Your task to perform on an android device: Open calendar and show me the third week of next month Image 0: 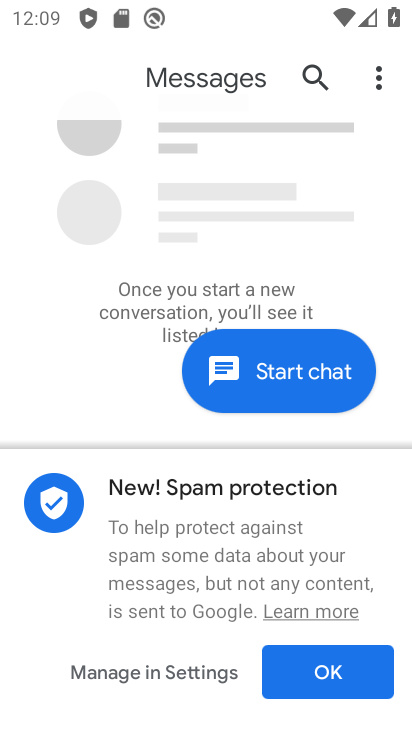
Step 0: press home button
Your task to perform on an android device: Open calendar and show me the third week of next month Image 1: 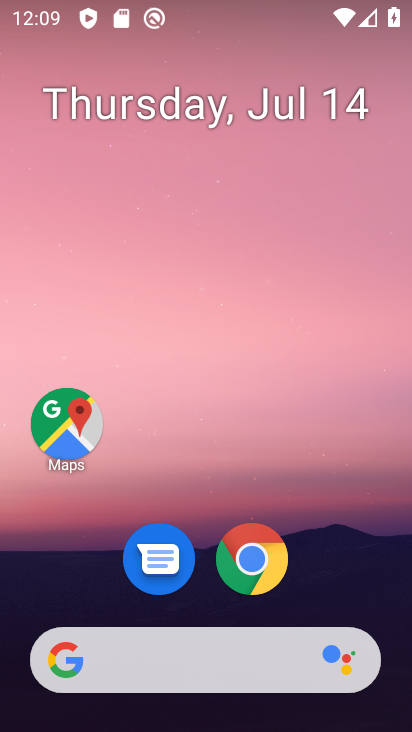
Step 1: drag from (312, 504) to (300, 10)
Your task to perform on an android device: Open calendar and show me the third week of next month Image 2: 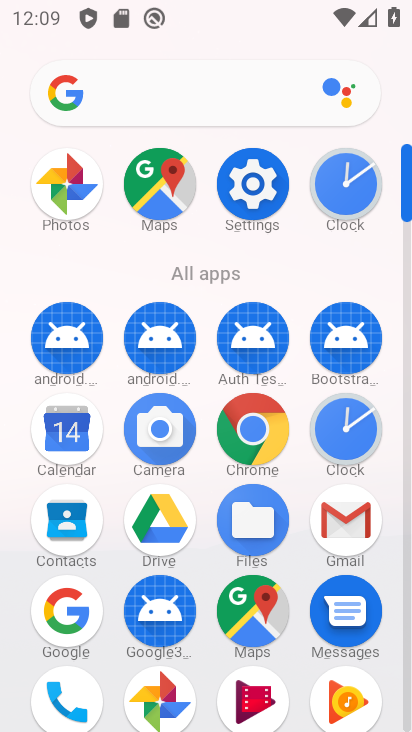
Step 2: click (59, 431)
Your task to perform on an android device: Open calendar and show me the third week of next month Image 3: 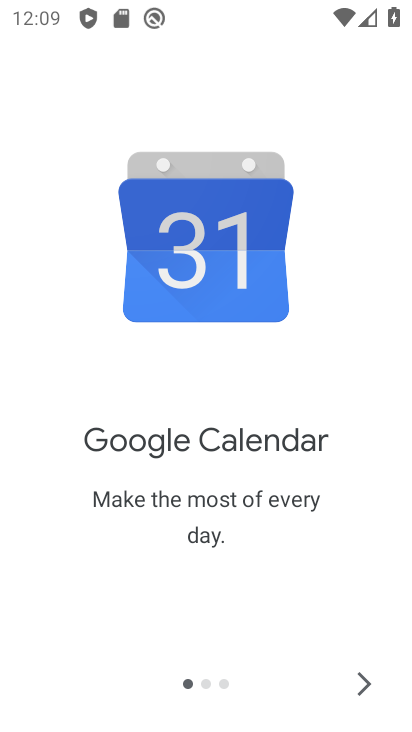
Step 3: click (363, 675)
Your task to perform on an android device: Open calendar and show me the third week of next month Image 4: 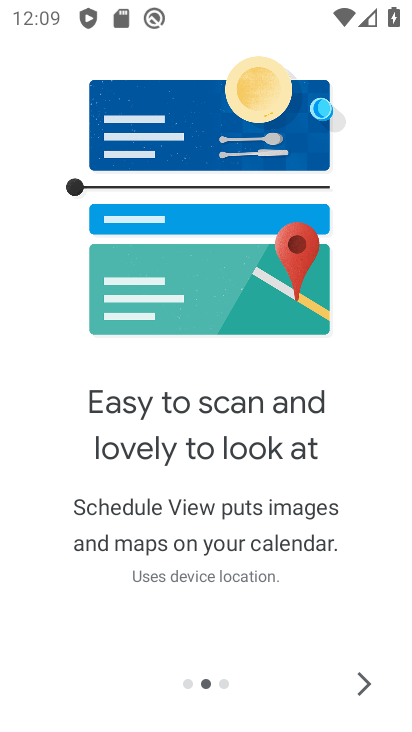
Step 4: click (364, 676)
Your task to perform on an android device: Open calendar and show me the third week of next month Image 5: 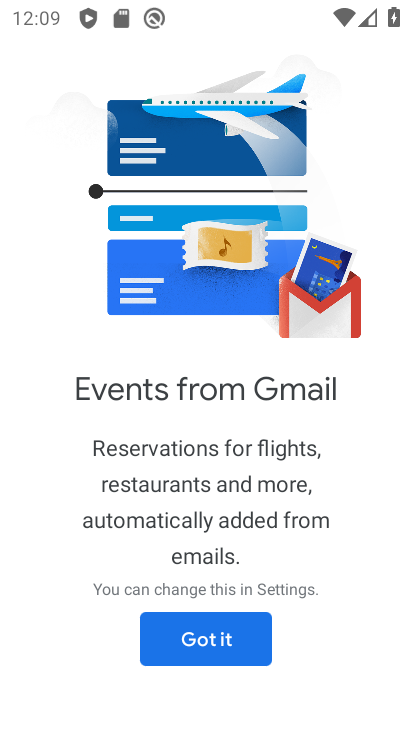
Step 5: click (249, 633)
Your task to perform on an android device: Open calendar and show me the third week of next month Image 6: 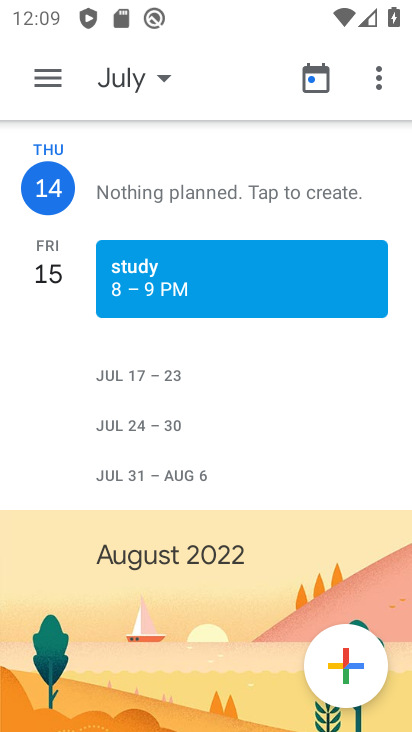
Step 6: click (45, 69)
Your task to perform on an android device: Open calendar and show me the third week of next month Image 7: 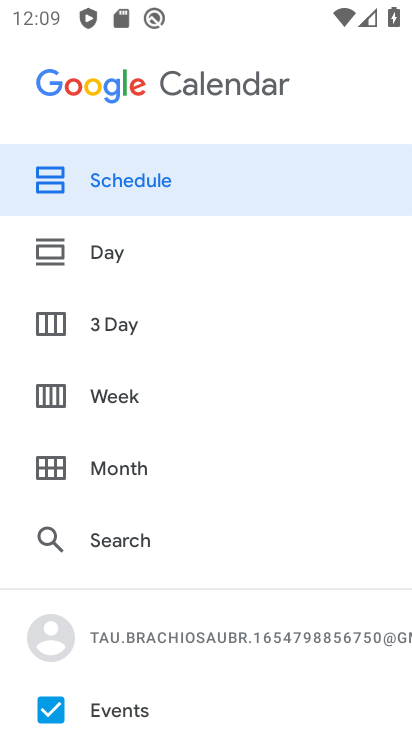
Step 7: click (51, 472)
Your task to perform on an android device: Open calendar and show me the third week of next month Image 8: 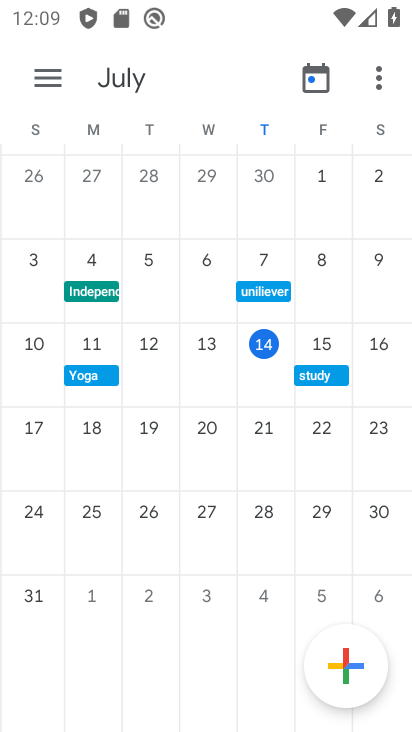
Step 8: drag from (348, 487) to (1, 494)
Your task to perform on an android device: Open calendar and show me the third week of next month Image 9: 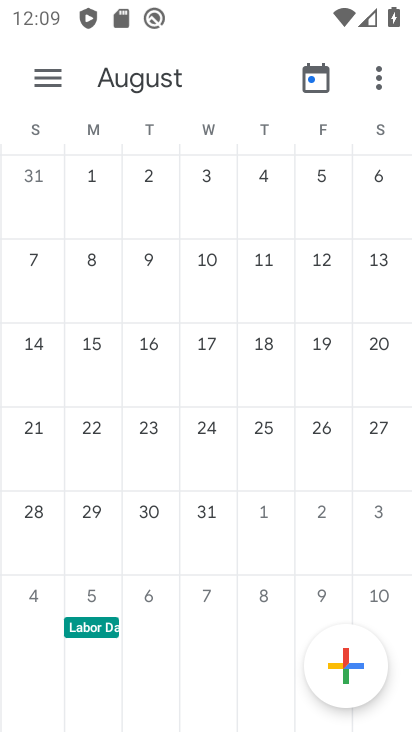
Step 9: click (37, 421)
Your task to perform on an android device: Open calendar and show me the third week of next month Image 10: 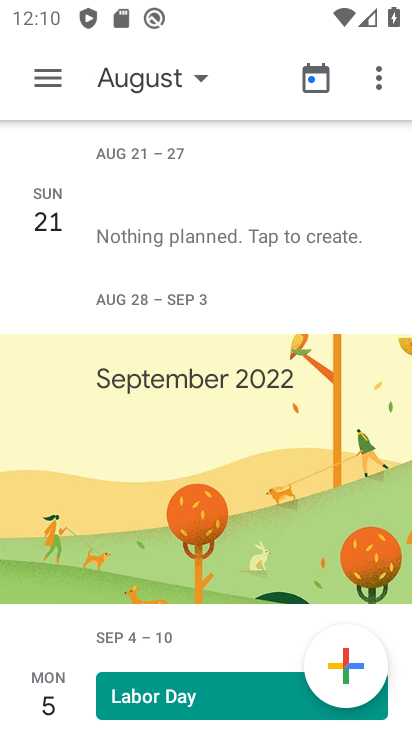
Step 10: click (45, 67)
Your task to perform on an android device: Open calendar and show me the third week of next month Image 11: 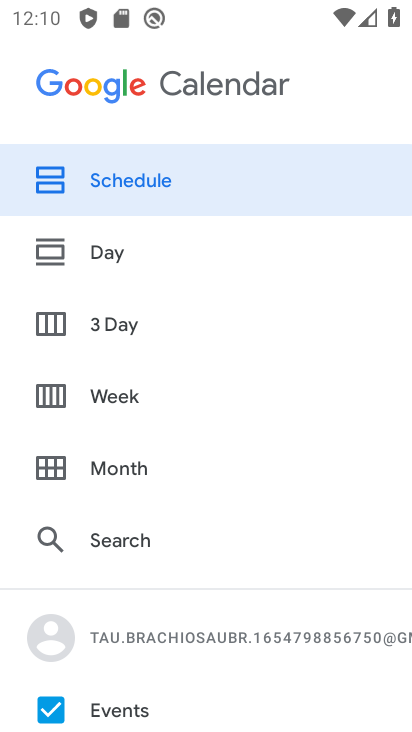
Step 11: click (51, 387)
Your task to perform on an android device: Open calendar and show me the third week of next month Image 12: 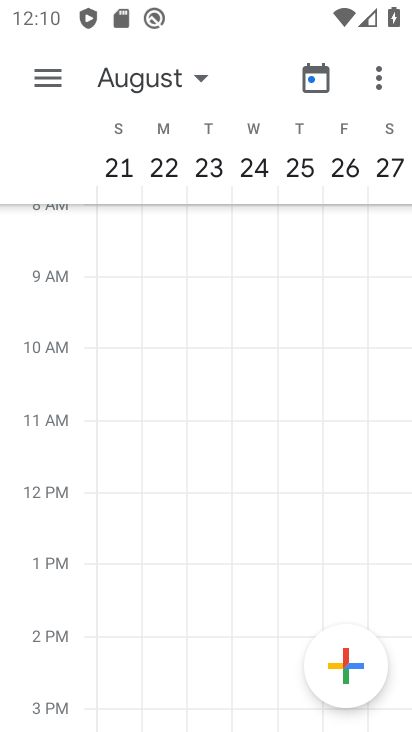
Step 12: task complete